Your task to perform on an android device: clear history in the chrome app Image 0: 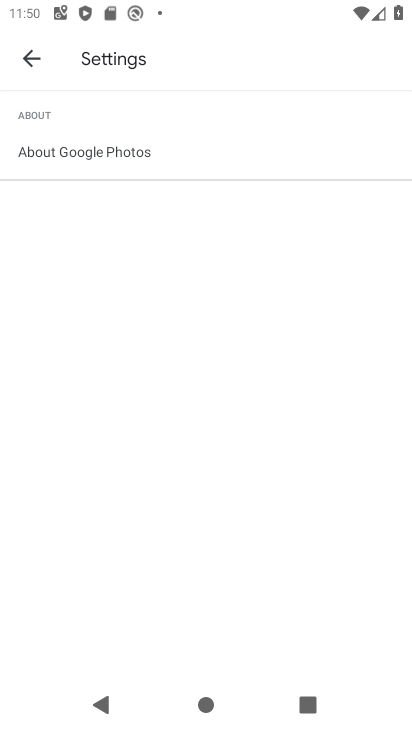
Step 0: press home button
Your task to perform on an android device: clear history in the chrome app Image 1: 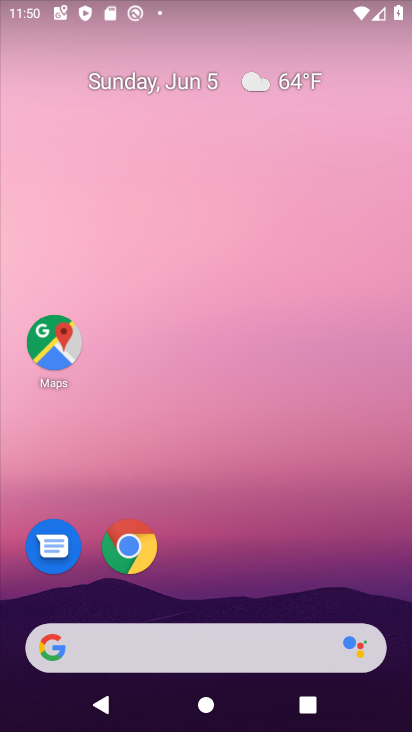
Step 1: click (145, 544)
Your task to perform on an android device: clear history in the chrome app Image 2: 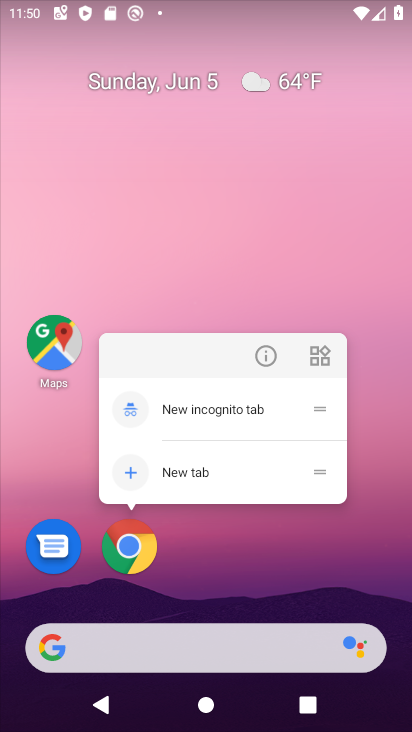
Step 2: click (131, 546)
Your task to perform on an android device: clear history in the chrome app Image 3: 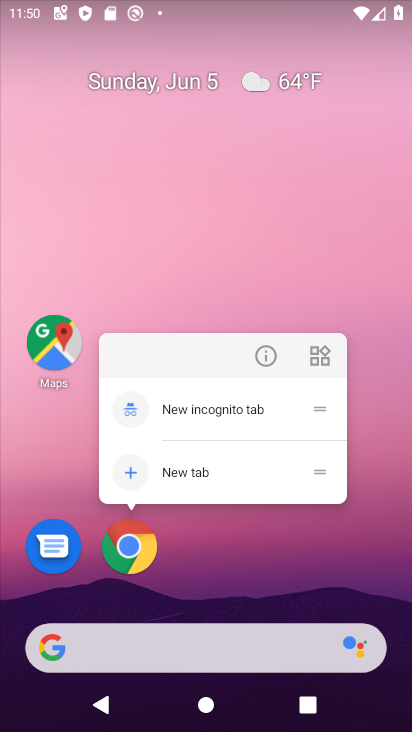
Step 3: click (128, 528)
Your task to perform on an android device: clear history in the chrome app Image 4: 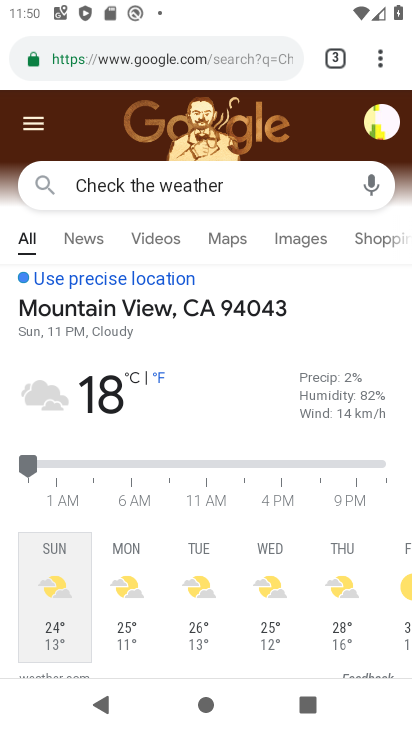
Step 4: click (372, 47)
Your task to perform on an android device: clear history in the chrome app Image 5: 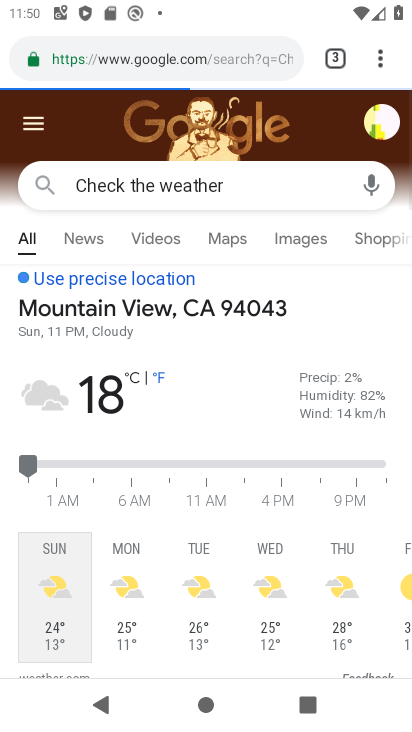
Step 5: click (375, 48)
Your task to perform on an android device: clear history in the chrome app Image 6: 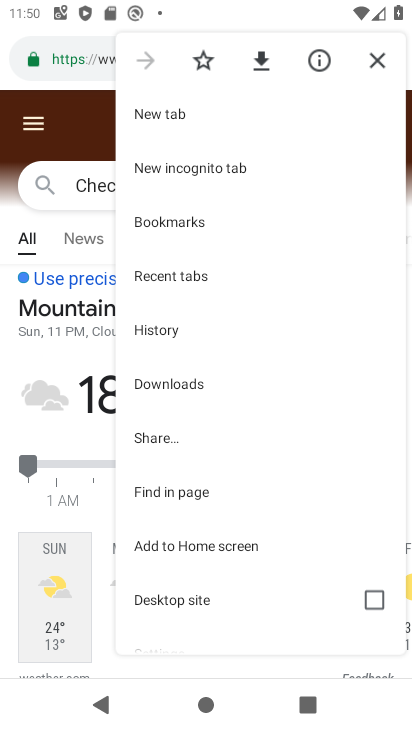
Step 6: drag from (188, 573) to (231, 308)
Your task to perform on an android device: clear history in the chrome app Image 7: 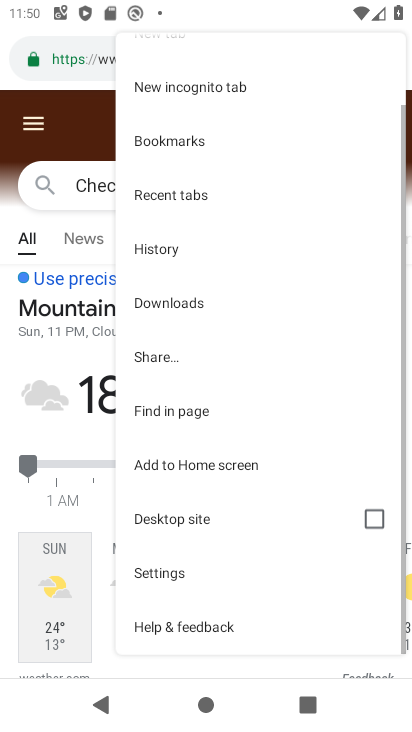
Step 7: click (187, 571)
Your task to perform on an android device: clear history in the chrome app Image 8: 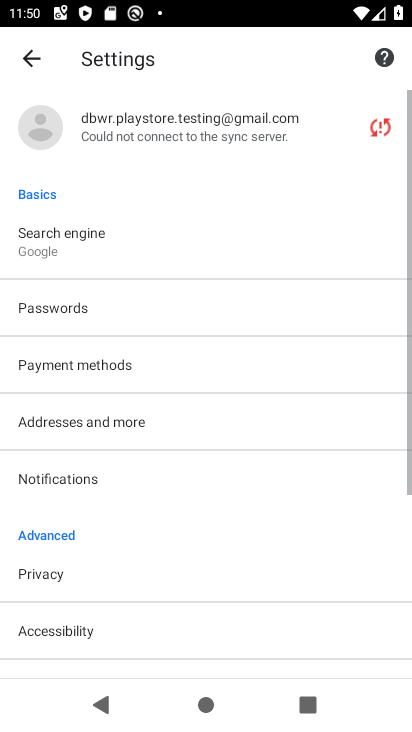
Step 8: click (27, 43)
Your task to perform on an android device: clear history in the chrome app Image 9: 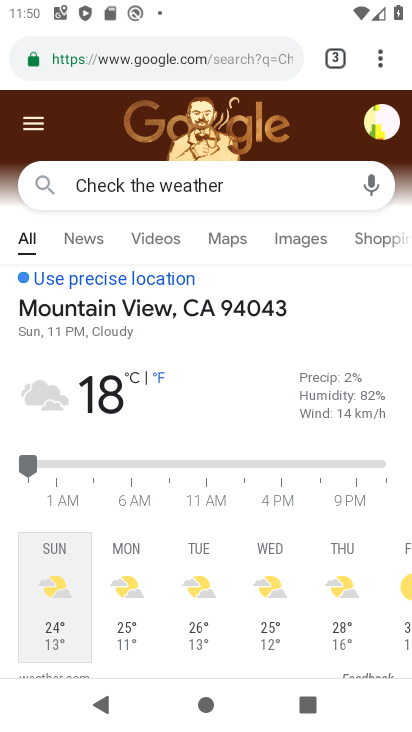
Step 9: click (380, 54)
Your task to perform on an android device: clear history in the chrome app Image 10: 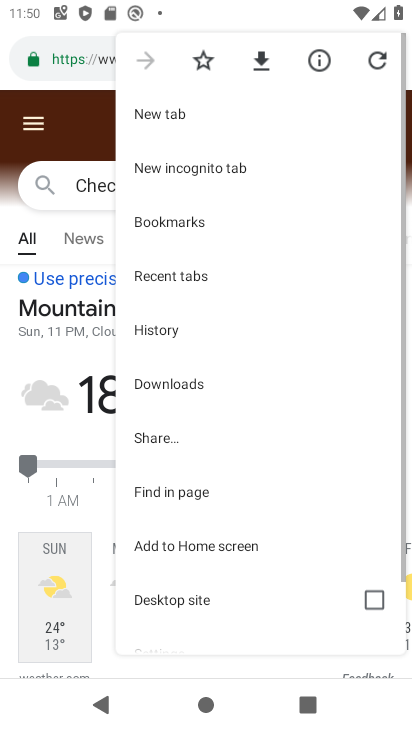
Step 10: click (180, 330)
Your task to perform on an android device: clear history in the chrome app Image 11: 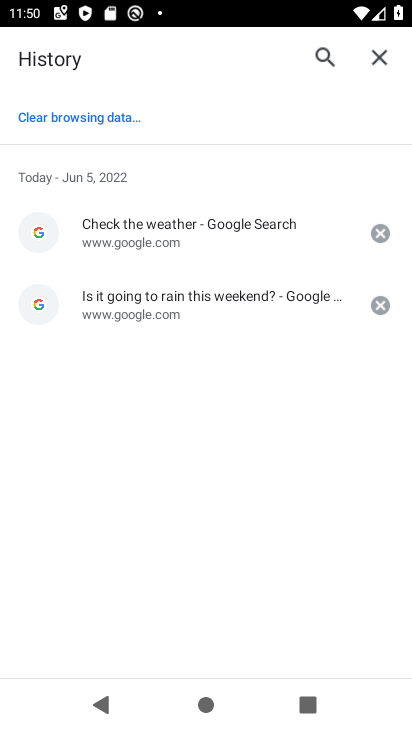
Step 11: click (59, 106)
Your task to perform on an android device: clear history in the chrome app Image 12: 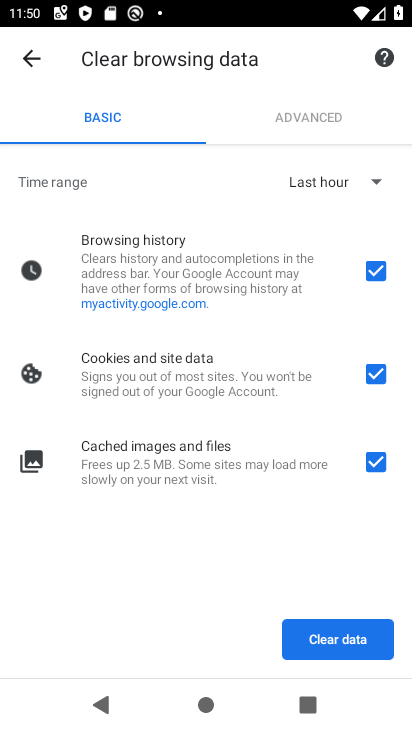
Step 12: click (308, 630)
Your task to perform on an android device: clear history in the chrome app Image 13: 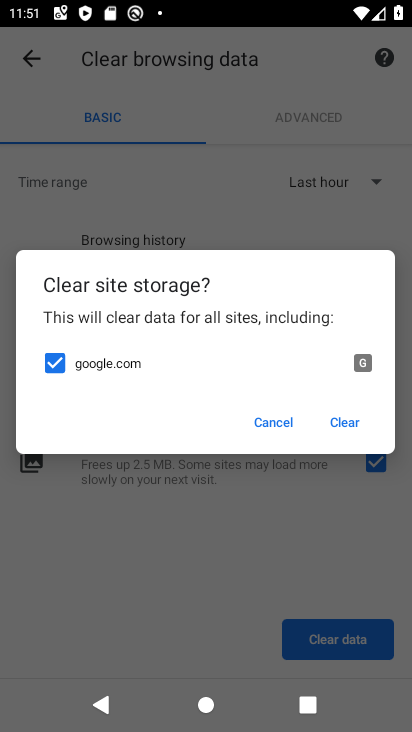
Step 13: click (351, 417)
Your task to perform on an android device: clear history in the chrome app Image 14: 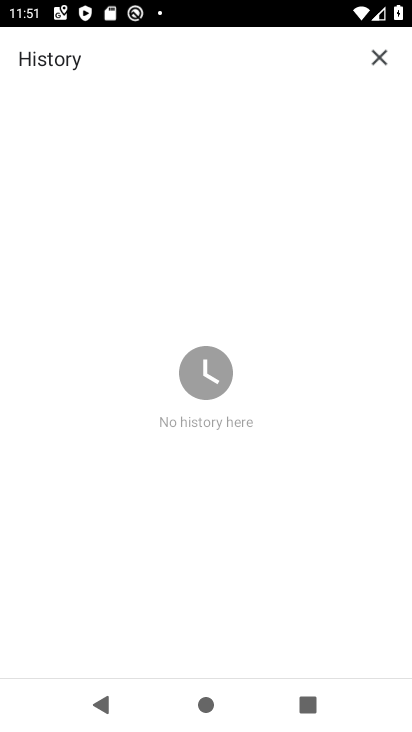
Step 14: task complete